Your task to perform on an android device: Open display settings Image 0: 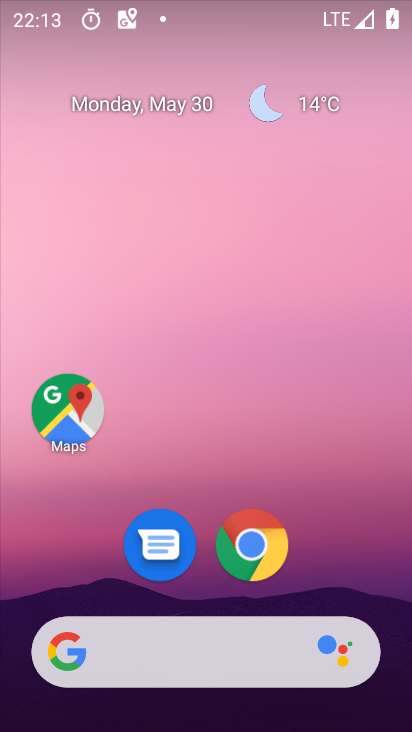
Step 0: drag from (336, 568) to (340, 55)
Your task to perform on an android device: Open display settings Image 1: 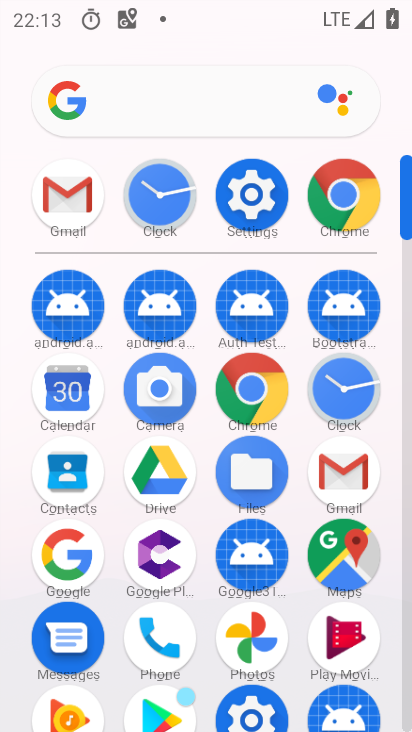
Step 1: click (261, 186)
Your task to perform on an android device: Open display settings Image 2: 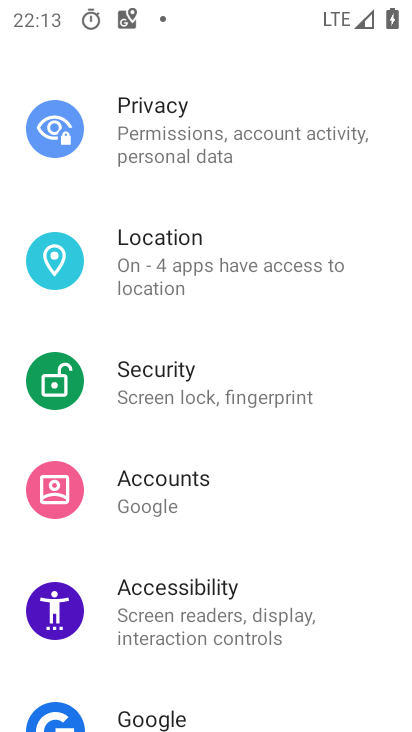
Step 2: drag from (309, 242) to (296, 668)
Your task to perform on an android device: Open display settings Image 3: 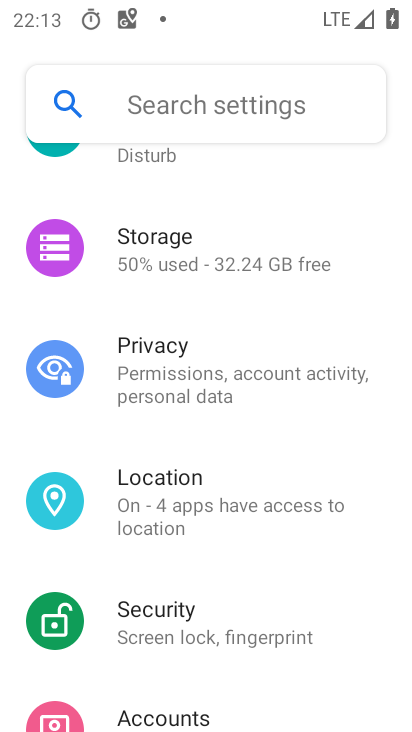
Step 3: drag from (295, 262) to (234, 664)
Your task to perform on an android device: Open display settings Image 4: 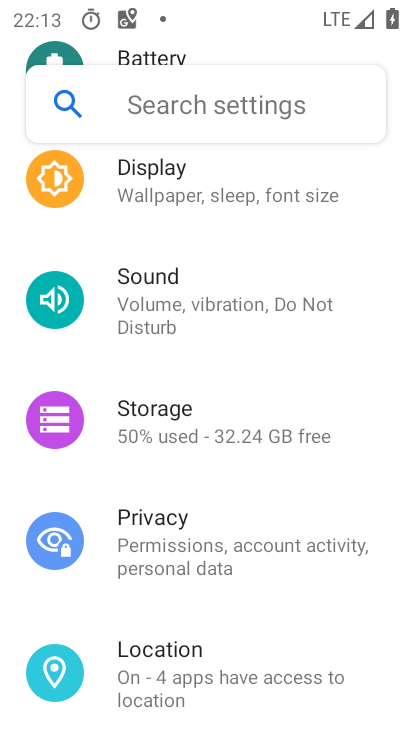
Step 4: click (205, 190)
Your task to perform on an android device: Open display settings Image 5: 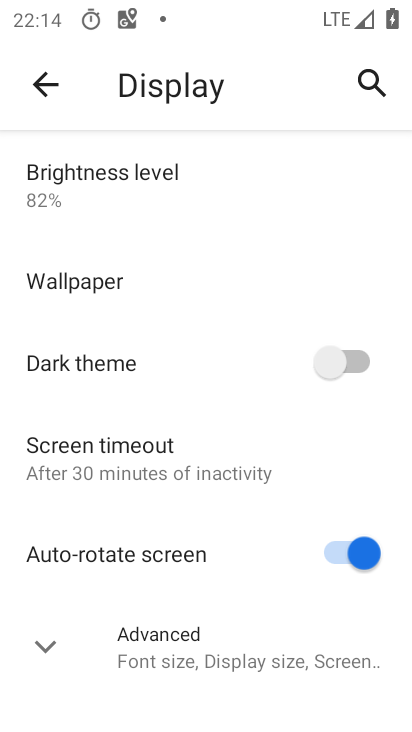
Step 5: task complete